Your task to perform on an android device: Show me the alarms in the clock app Image 0: 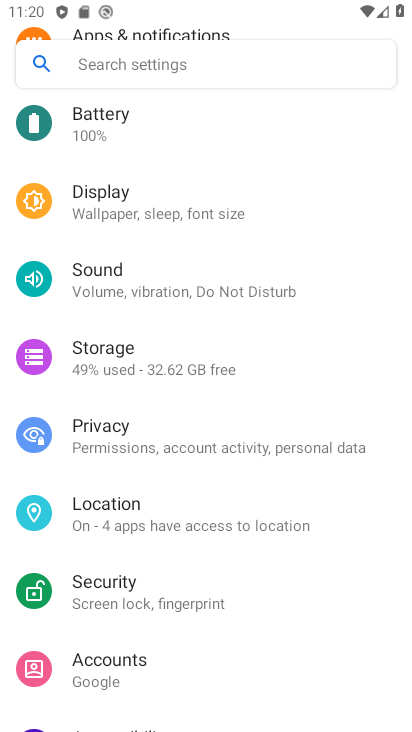
Step 0: press home button
Your task to perform on an android device: Show me the alarms in the clock app Image 1: 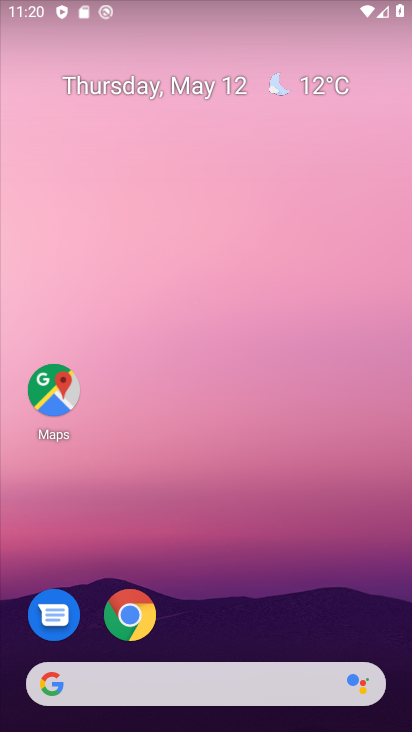
Step 1: drag from (259, 621) to (247, 192)
Your task to perform on an android device: Show me the alarms in the clock app Image 2: 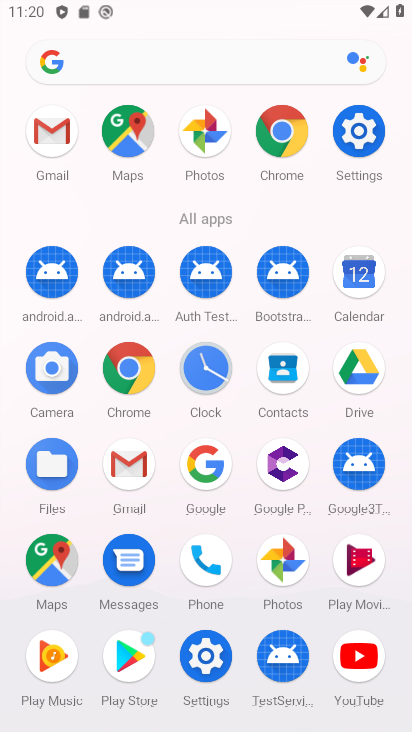
Step 2: click (195, 353)
Your task to perform on an android device: Show me the alarms in the clock app Image 3: 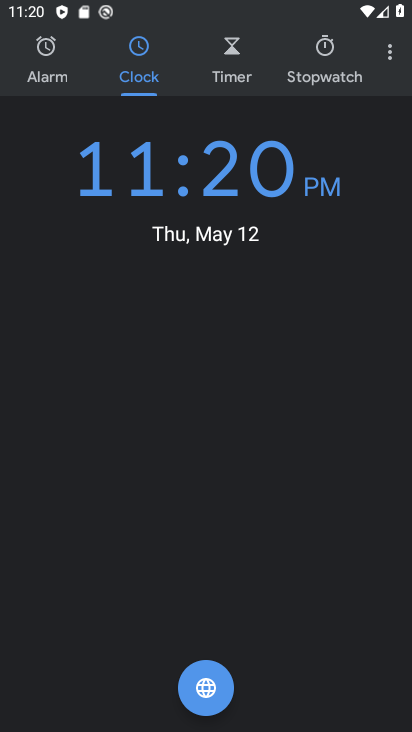
Step 3: click (50, 53)
Your task to perform on an android device: Show me the alarms in the clock app Image 4: 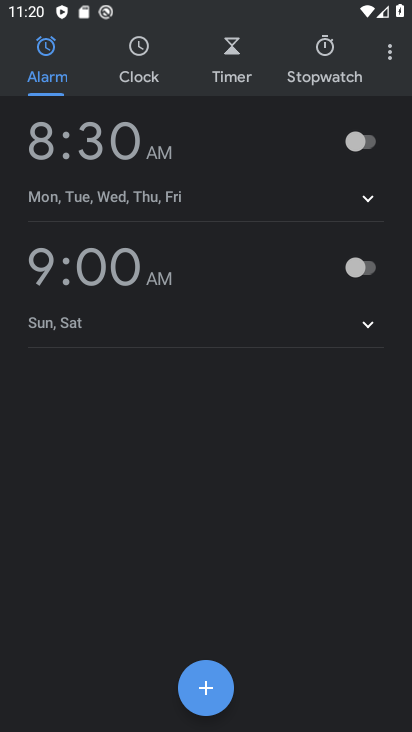
Step 4: task complete